Your task to perform on an android device: Open Amazon Image 0: 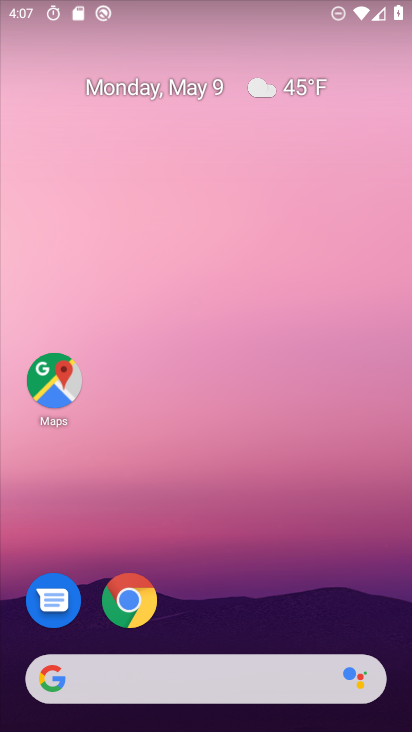
Step 0: drag from (220, 556) to (190, 29)
Your task to perform on an android device: Open Amazon Image 1: 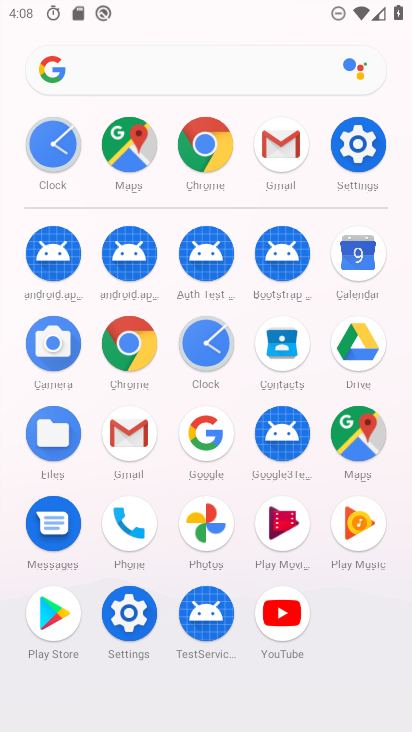
Step 1: drag from (4, 563) to (0, 268)
Your task to perform on an android device: Open Amazon Image 2: 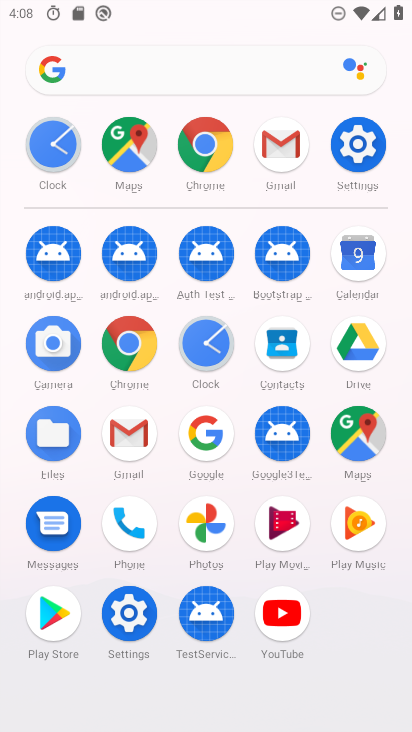
Step 2: click (126, 342)
Your task to perform on an android device: Open Amazon Image 3: 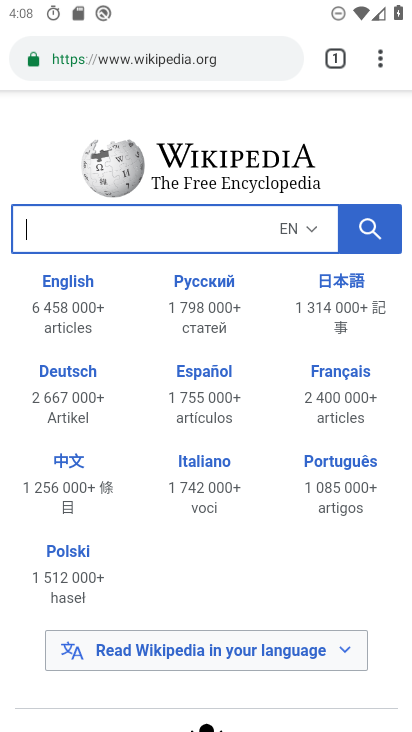
Step 3: click (232, 64)
Your task to perform on an android device: Open Amazon Image 4: 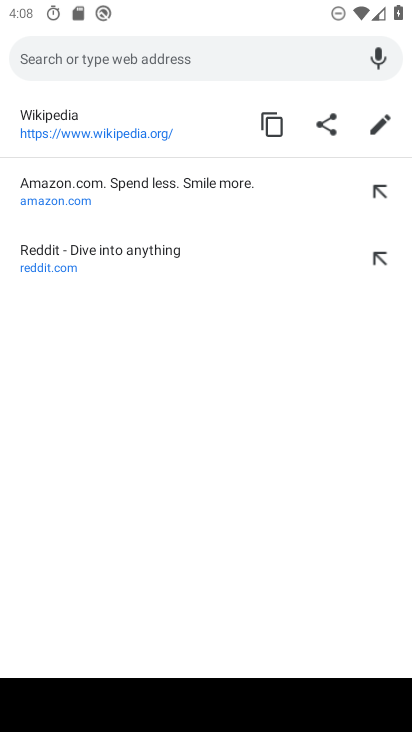
Step 4: click (126, 196)
Your task to perform on an android device: Open Amazon Image 5: 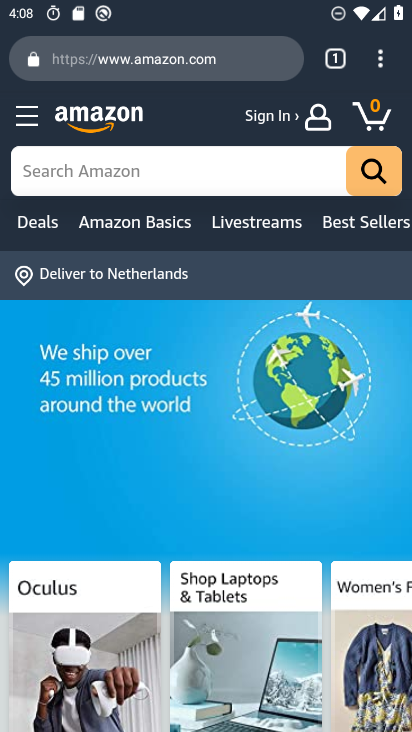
Step 5: task complete